Your task to perform on an android device: check data usage Image 0: 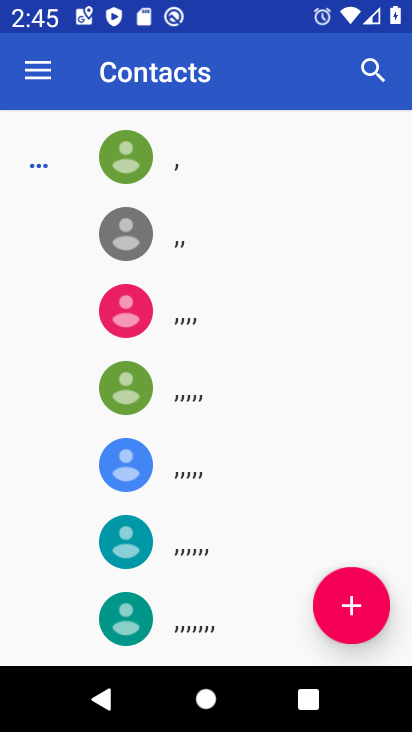
Step 0: press home button
Your task to perform on an android device: check data usage Image 1: 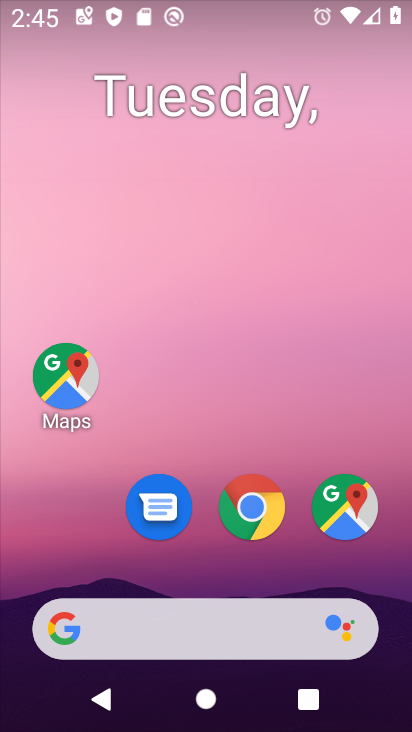
Step 1: click (249, 502)
Your task to perform on an android device: check data usage Image 2: 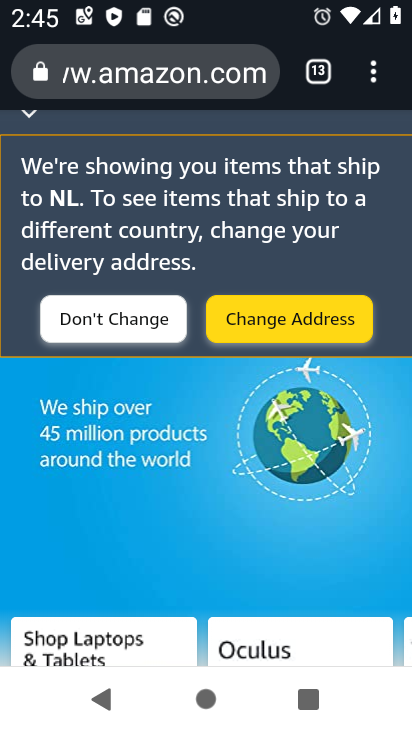
Step 2: press home button
Your task to perform on an android device: check data usage Image 3: 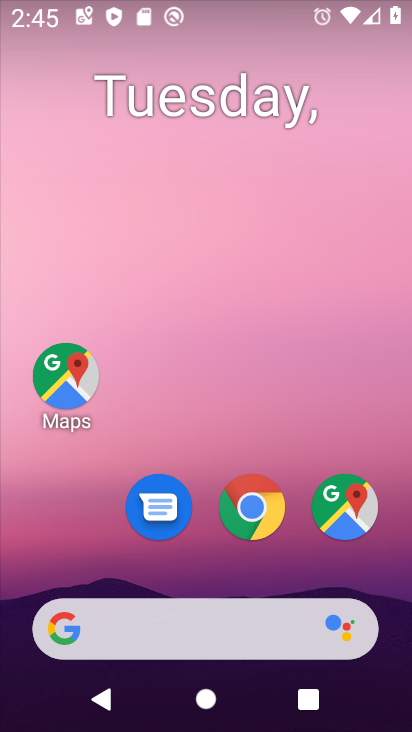
Step 3: drag from (181, 547) to (255, 135)
Your task to perform on an android device: check data usage Image 4: 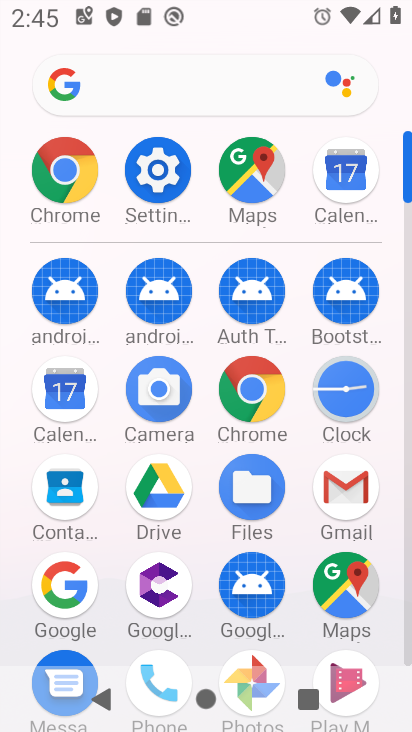
Step 4: click (174, 166)
Your task to perform on an android device: check data usage Image 5: 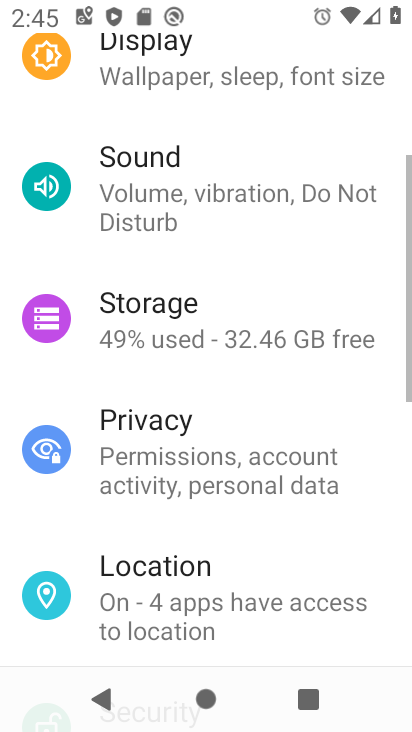
Step 5: drag from (202, 139) to (222, 501)
Your task to perform on an android device: check data usage Image 6: 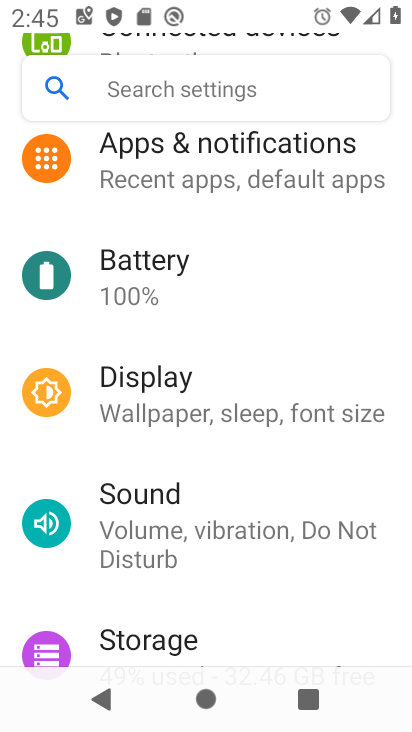
Step 6: drag from (214, 268) to (192, 589)
Your task to perform on an android device: check data usage Image 7: 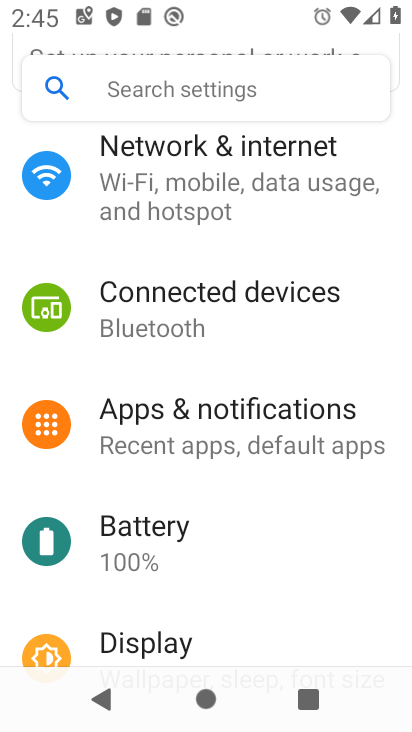
Step 7: click (202, 177)
Your task to perform on an android device: check data usage Image 8: 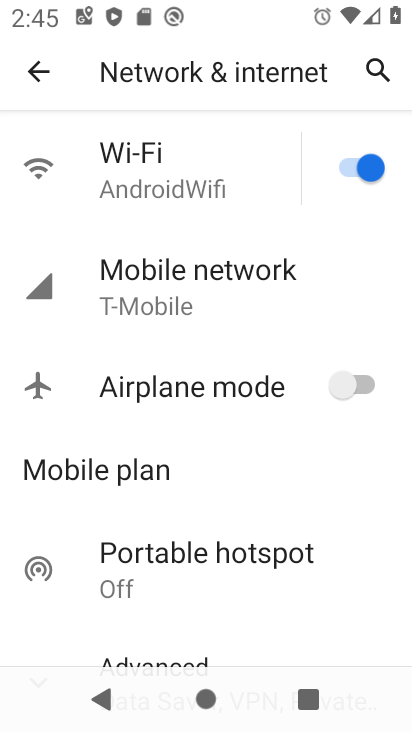
Step 8: click (182, 264)
Your task to perform on an android device: check data usage Image 9: 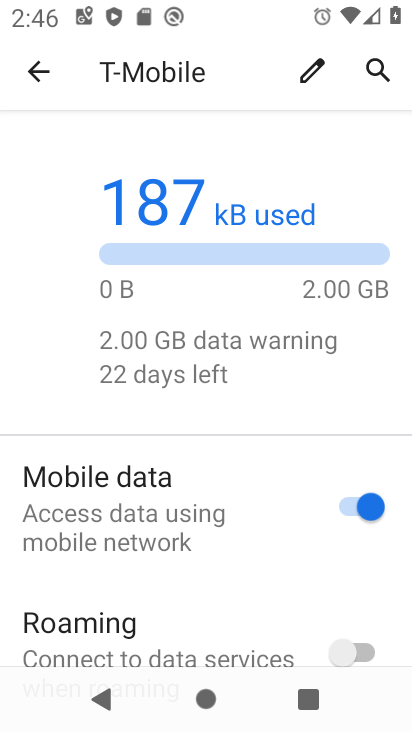
Step 9: task complete